Your task to perform on an android device: Show me popular games on the Play Store Image 0: 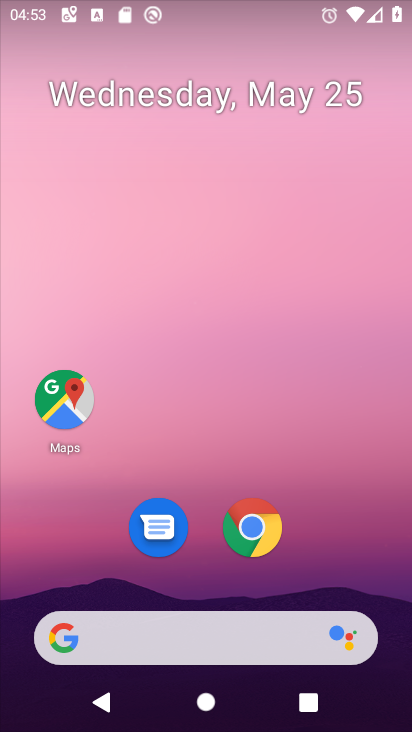
Step 0: drag from (204, 521) to (223, 87)
Your task to perform on an android device: Show me popular games on the Play Store Image 1: 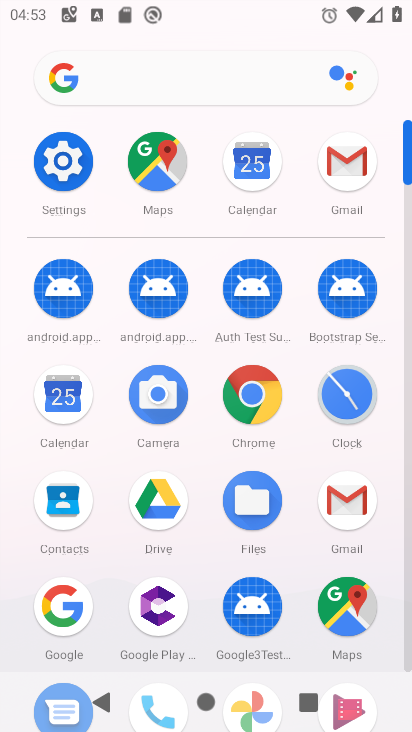
Step 1: drag from (203, 537) to (230, 255)
Your task to perform on an android device: Show me popular games on the Play Store Image 2: 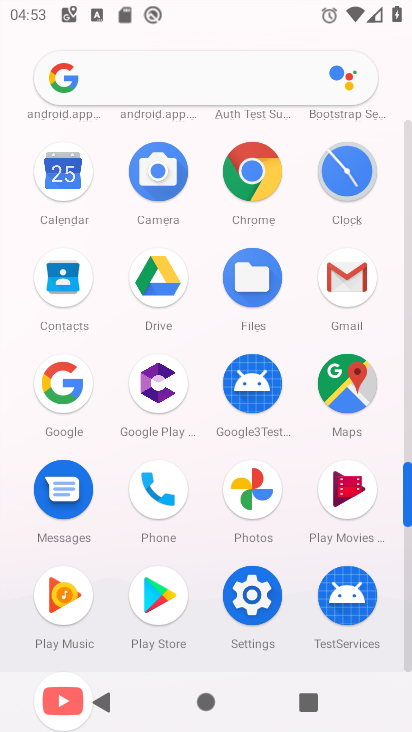
Step 2: click (157, 595)
Your task to perform on an android device: Show me popular games on the Play Store Image 3: 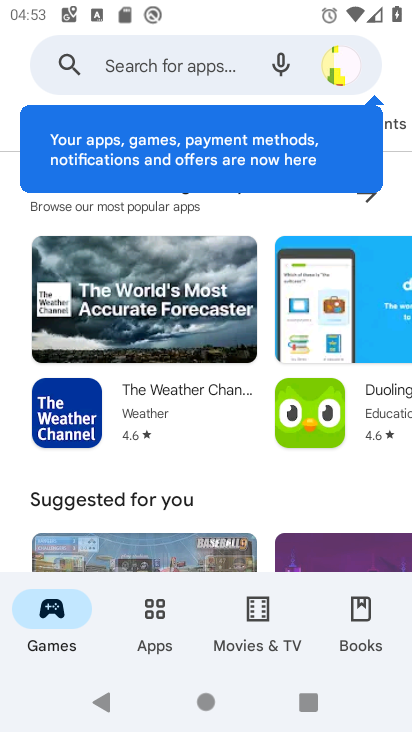
Step 3: drag from (230, 510) to (208, 233)
Your task to perform on an android device: Show me popular games on the Play Store Image 4: 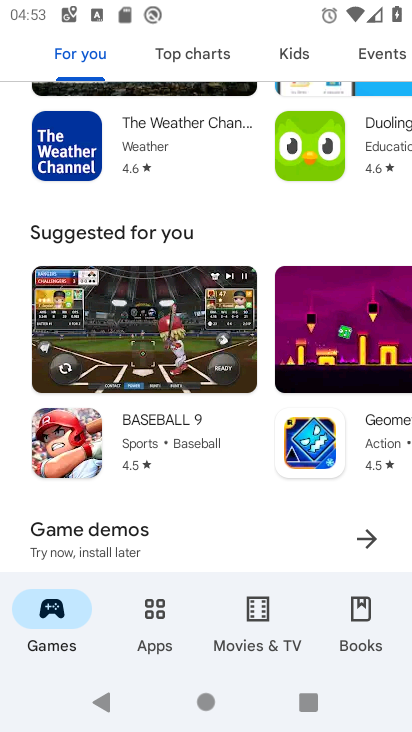
Step 4: drag from (185, 511) to (198, 229)
Your task to perform on an android device: Show me popular games on the Play Store Image 5: 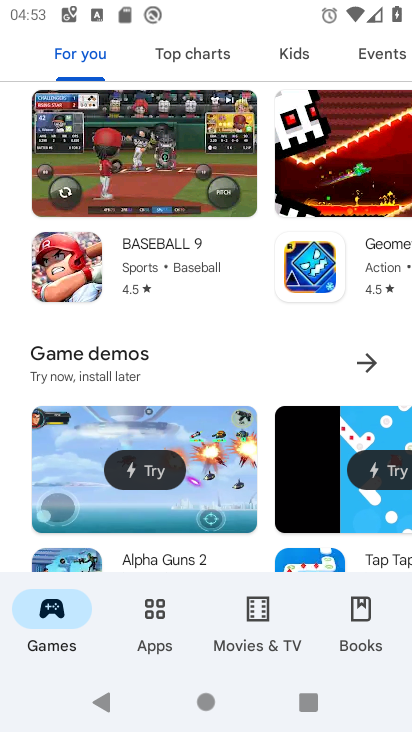
Step 5: drag from (227, 368) to (225, 141)
Your task to perform on an android device: Show me popular games on the Play Store Image 6: 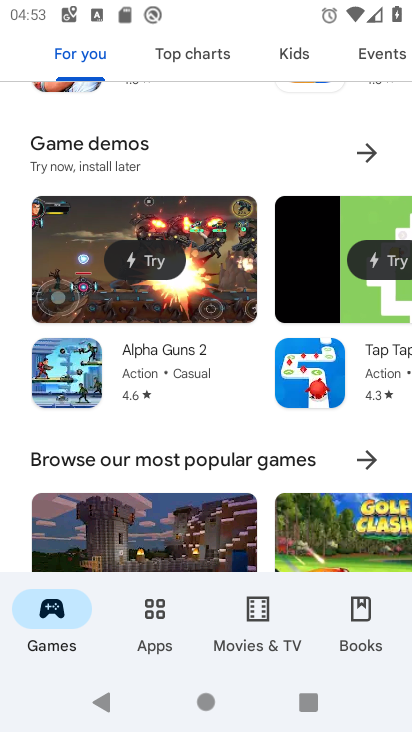
Step 6: drag from (373, 60) to (114, 42)
Your task to perform on an android device: Show me popular games on the Play Store Image 7: 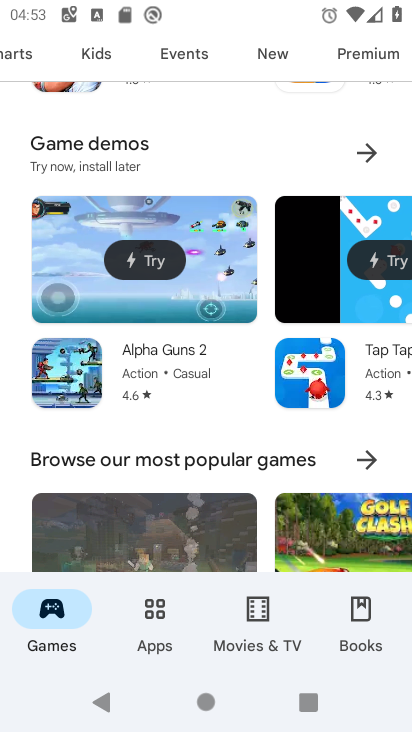
Step 7: drag from (367, 53) to (165, 38)
Your task to perform on an android device: Show me popular games on the Play Store Image 8: 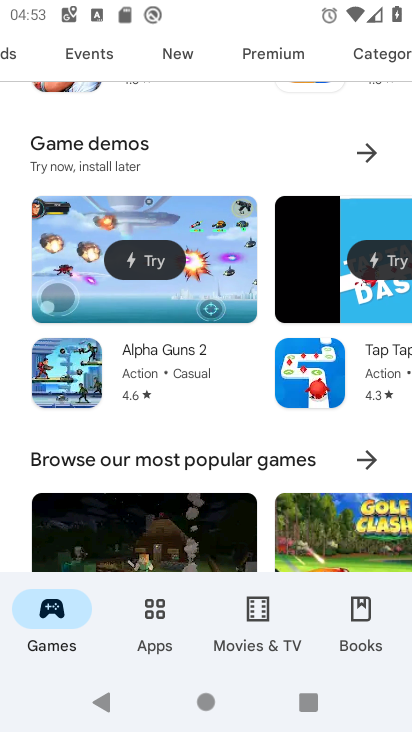
Step 8: drag from (375, 59) to (83, 48)
Your task to perform on an android device: Show me popular games on the Play Store Image 9: 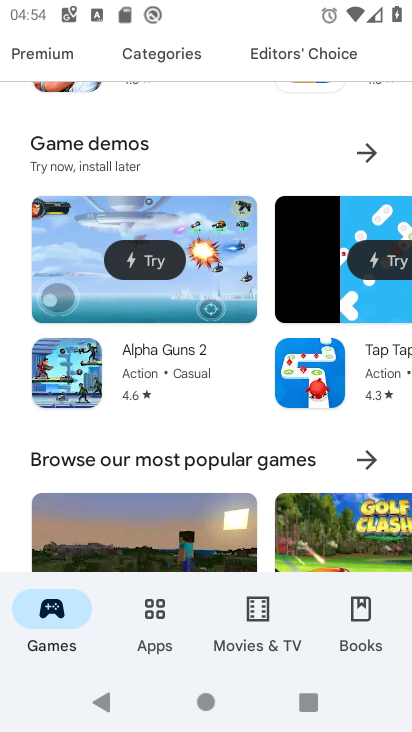
Step 9: click (368, 458)
Your task to perform on an android device: Show me popular games on the Play Store Image 10: 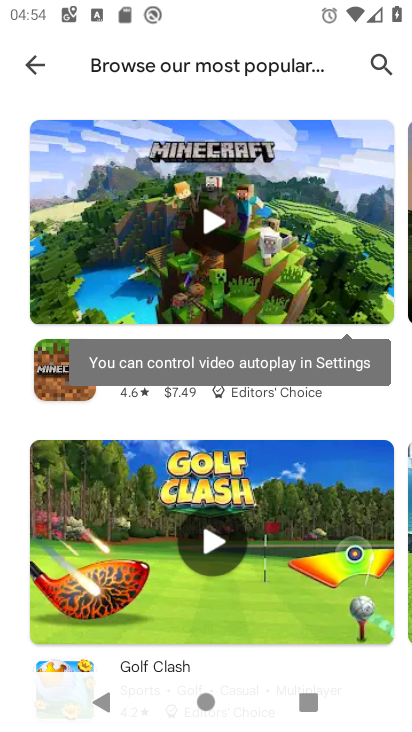
Step 10: task complete